Your task to perform on an android device: snooze an email in the gmail app Image 0: 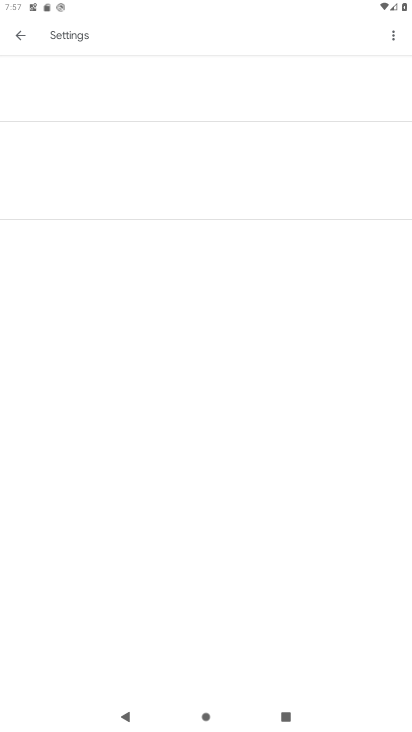
Step 0: drag from (242, 657) to (238, 577)
Your task to perform on an android device: snooze an email in the gmail app Image 1: 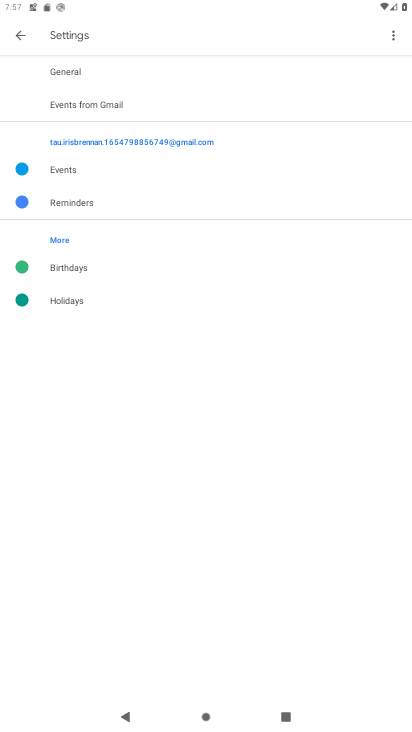
Step 1: press home button
Your task to perform on an android device: snooze an email in the gmail app Image 2: 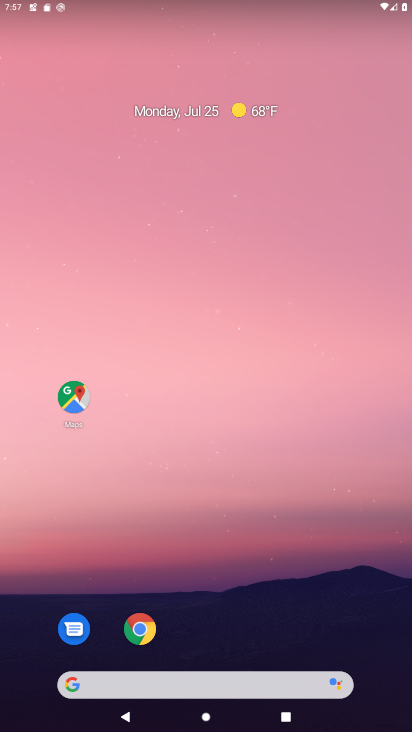
Step 2: drag from (220, 628) to (219, 225)
Your task to perform on an android device: snooze an email in the gmail app Image 3: 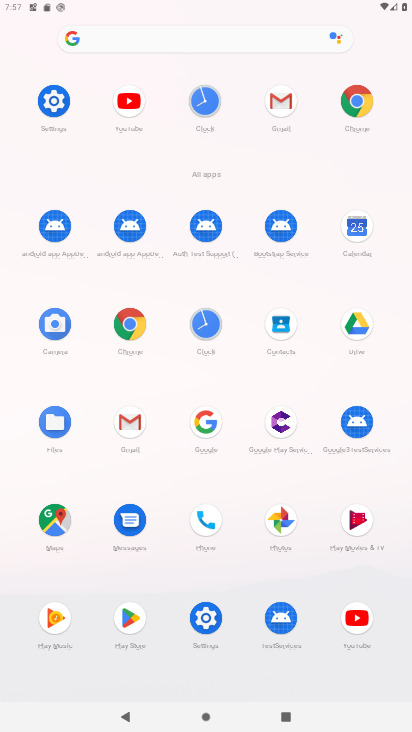
Step 3: click (280, 101)
Your task to perform on an android device: snooze an email in the gmail app Image 4: 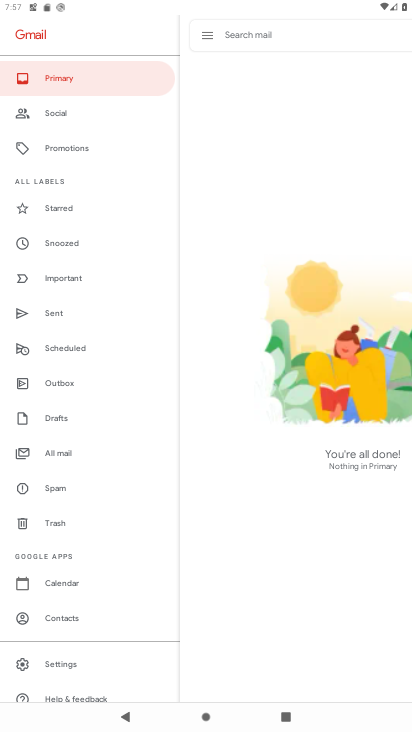
Step 4: click (66, 238)
Your task to perform on an android device: snooze an email in the gmail app Image 5: 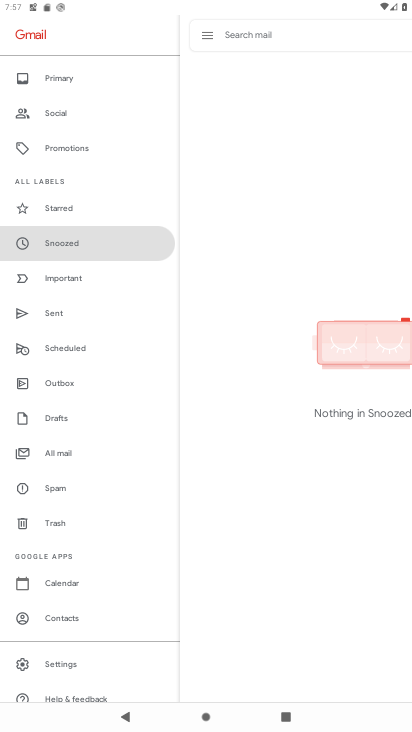
Step 5: task complete